Your task to perform on an android device: change the clock display to digital Image 0: 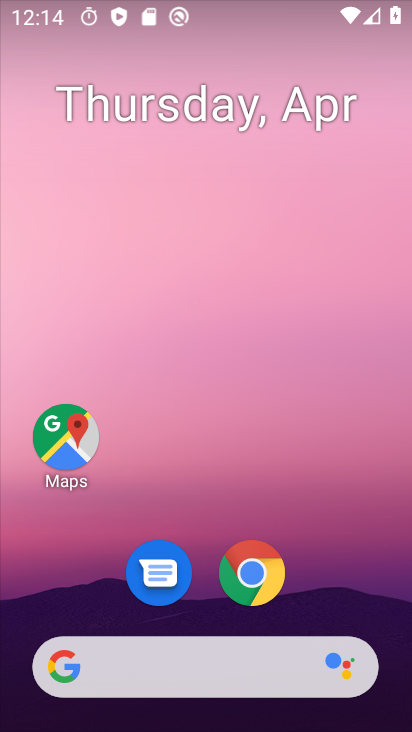
Step 0: drag from (370, 535) to (347, 164)
Your task to perform on an android device: change the clock display to digital Image 1: 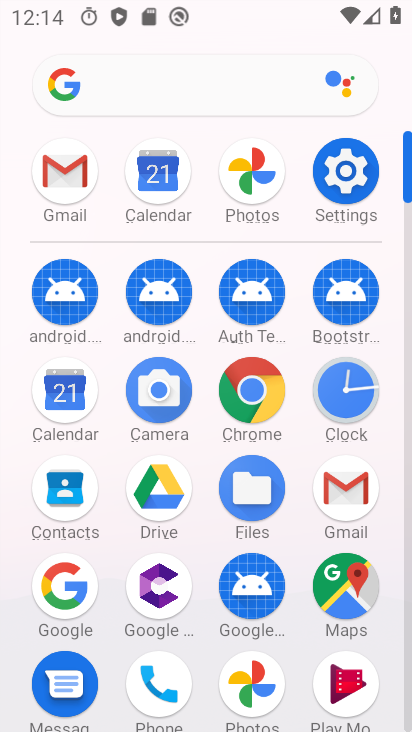
Step 1: click (346, 384)
Your task to perform on an android device: change the clock display to digital Image 2: 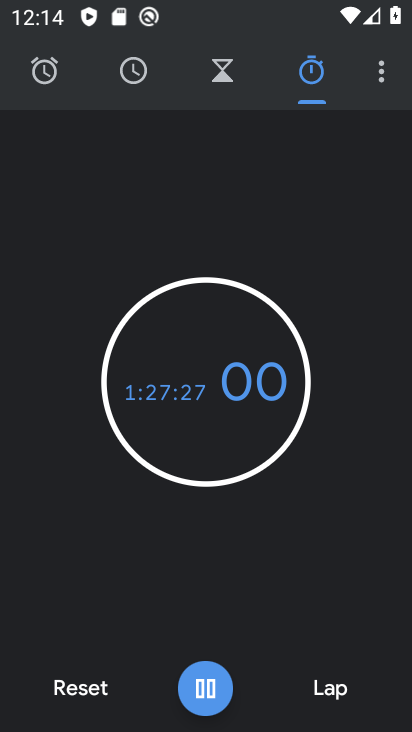
Step 2: click (379, 68)
Your task to perform on an android device: change the clock display to digital Image 3: 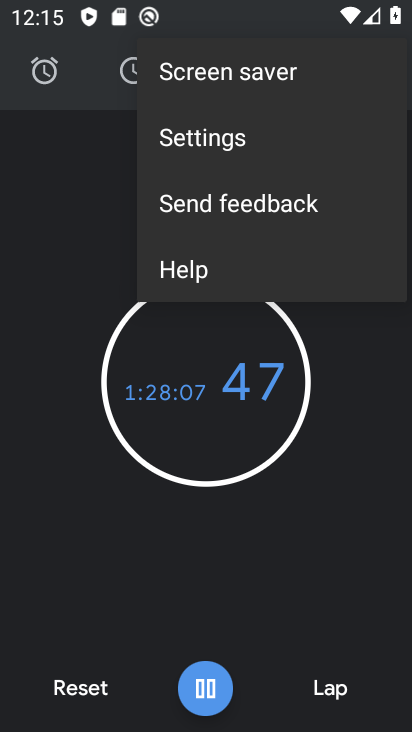
Step 3: click (203, 132)
Your task to perform on an android device: change the clock display to digital Image 4: 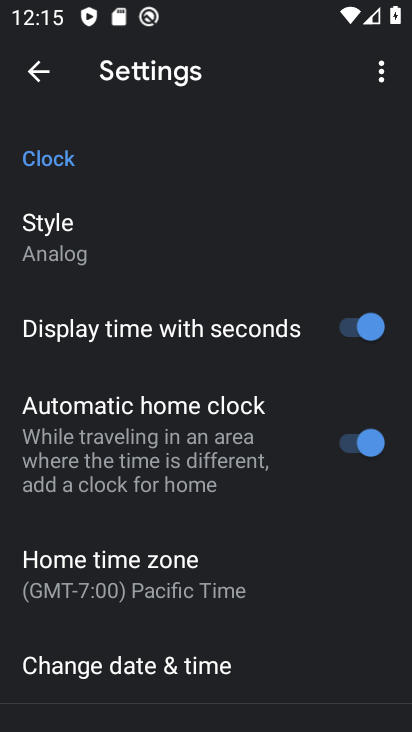
Step 4: click (53, 238)
Your task to perform on an android device: change the clock display to digital Image 5: 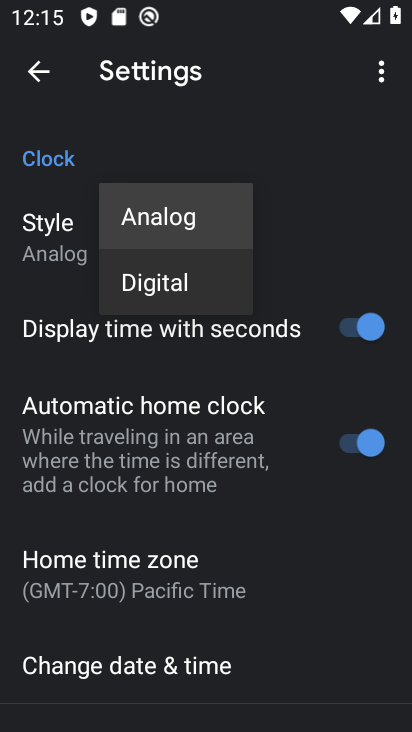
Step 5: click (155, 283)
Your task to perform on an android device: change the clock display to digital Image 6: 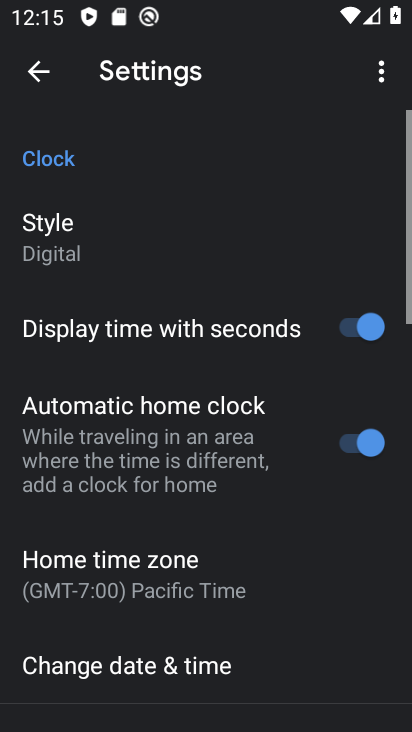
Step 6: task complete